Your task to perform on an android device: Go to ESPN.com Image 0: 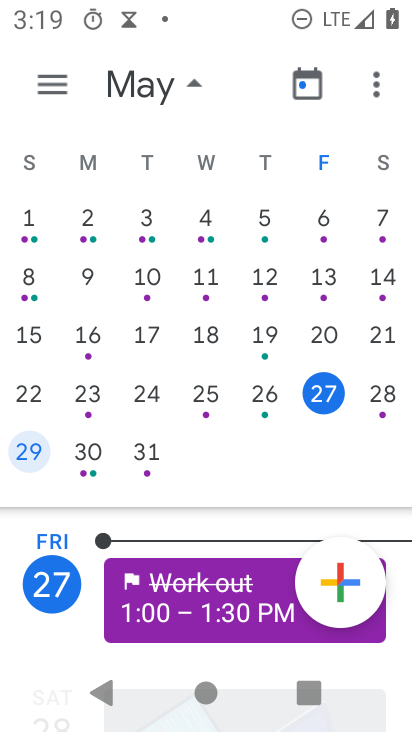
Step 0: press home button
Your task to perform on an android device: Go to ESPN.com Image 1: 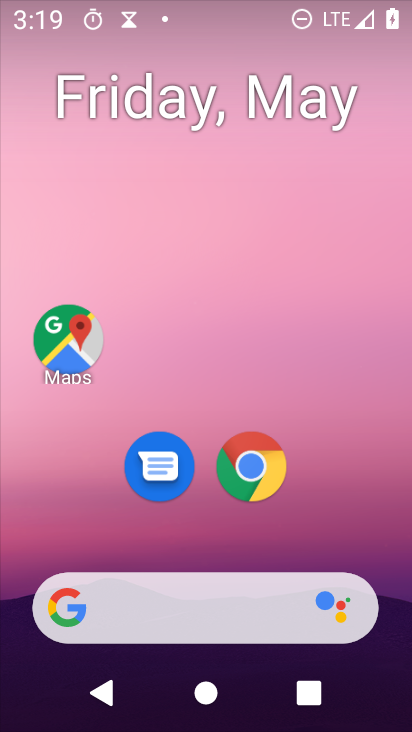
Step 1: drag from (358, 426) to (334, 30)
Your task to perform on an android device: Go to ESPN.com Image 2: 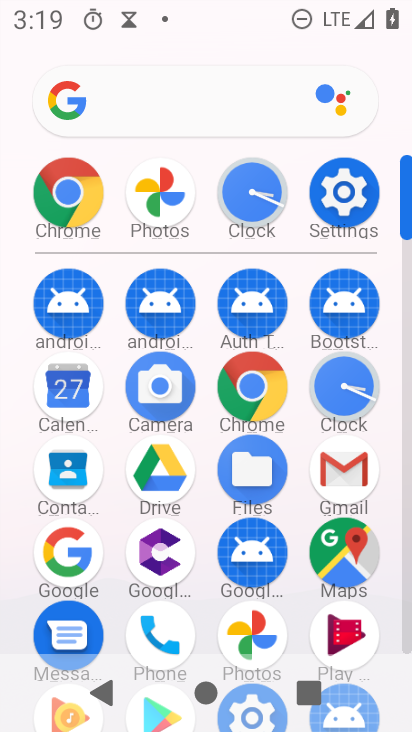
Step 2: click (57, 215)
Your task to perform on an android device: Go to ESPN.com Image 3: 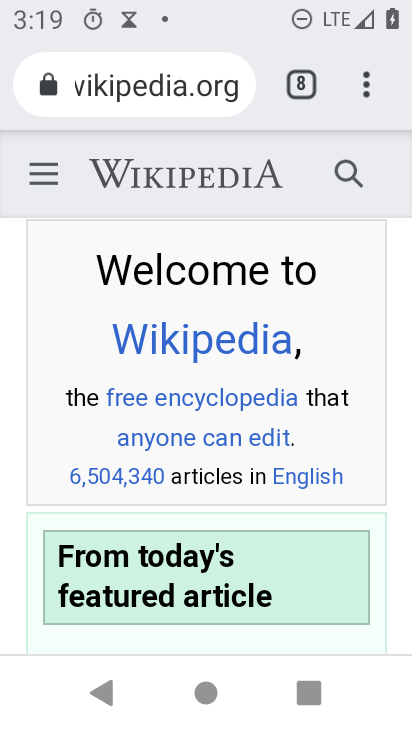
Step 3: click (184, 86)
Your task to perform on an android device: Go to ESPN.com Image 4: 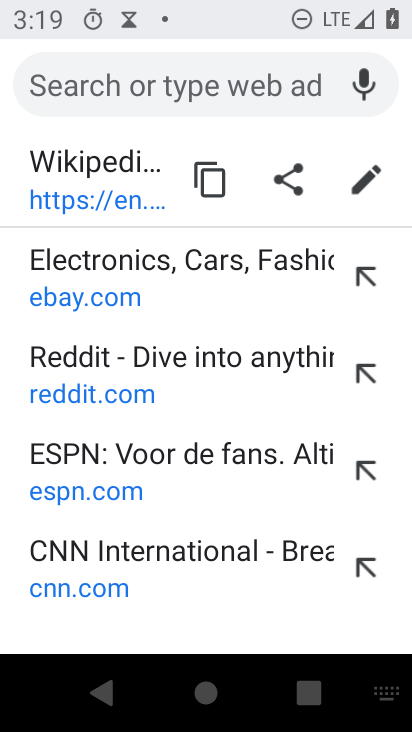
Step 4: click (155, 464)
Your task to perform on an android device: Go to ESPN.com Image 5: 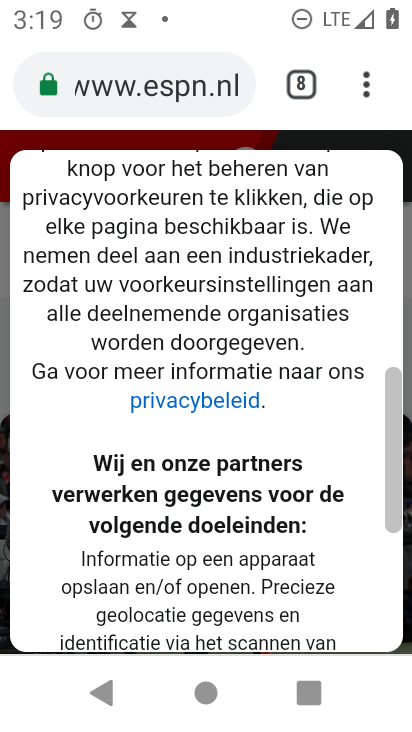
Step 5: task complete